Your task to perform on an android device: toggle priority inbox in the gmail app Image 0: 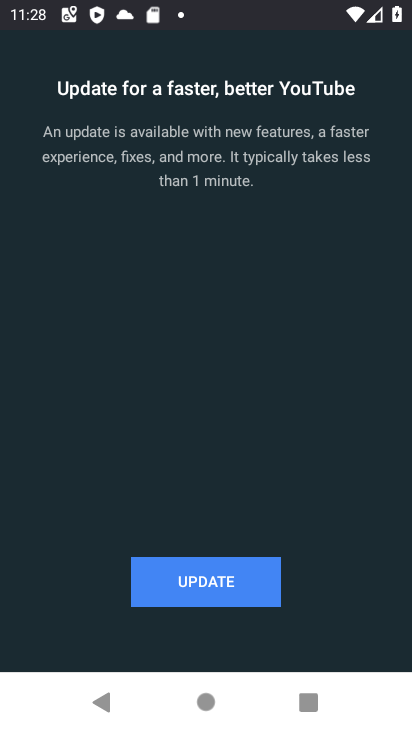
Step 0: press home button
Your task to perform on an android device: toggle priority inbox in the gmail app Image 1: 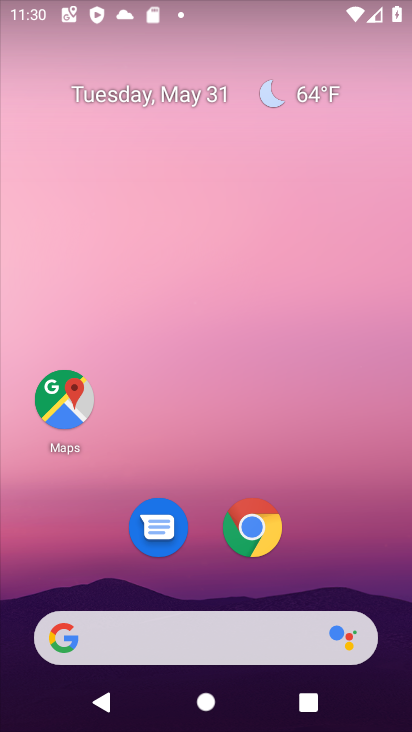
Step 1: drag from (281, 688) to (279, 17)
Your task to perform on an android device: toggle priority inbox in the gmail app Image 2: 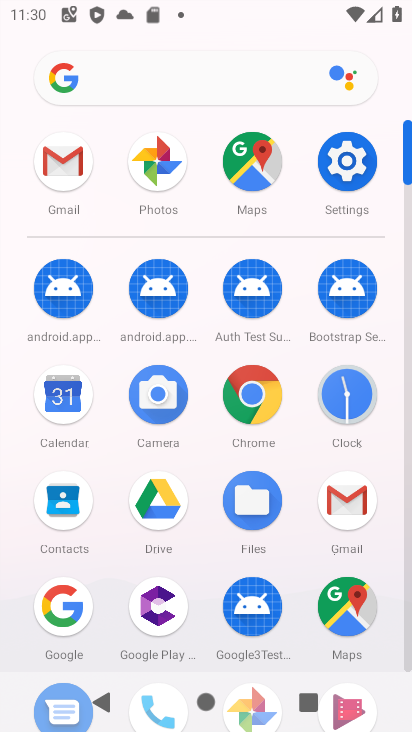
Step 2: click (345, 491)
Your task to perform on an android device: toggle priority inbox in the gmail app Image 3: 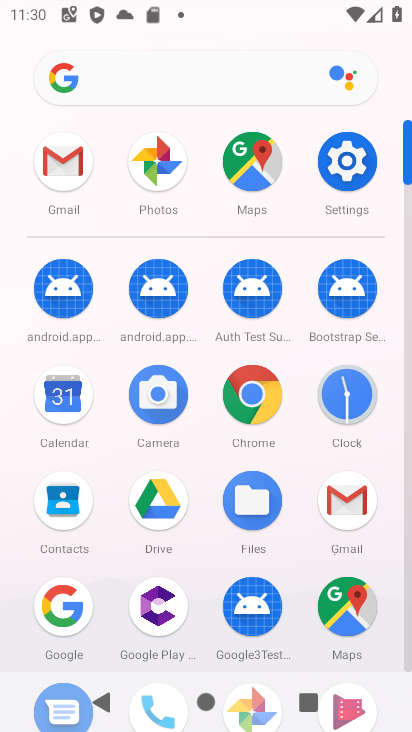
Step 3: click (345, 491)
Your task to perform on an android device: toggle priority inbox in the gmail app Image 4: 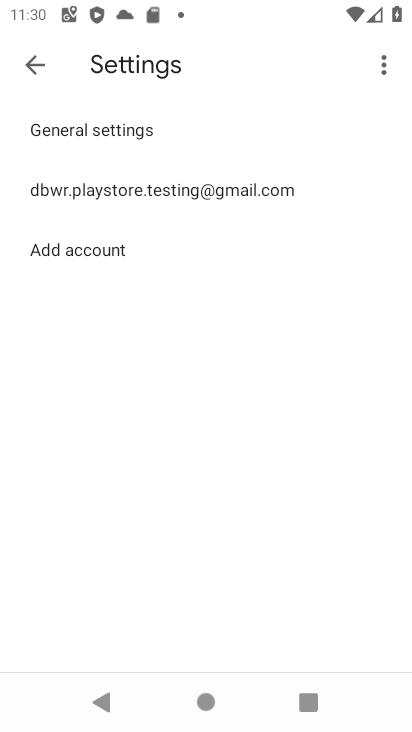
Step 4: click (126, 189)
Your task to perform on an android device: toggle priority inbox in the gmail app Image 5: 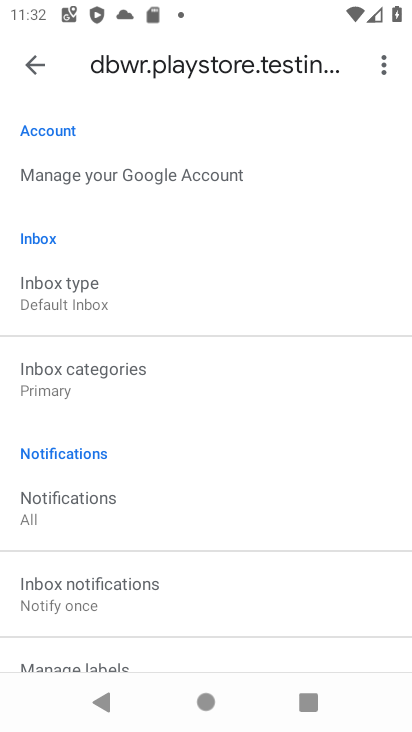
Step 5: click (149, 301)
Your task to perform on an android device: toggle priority inbox in the gmail app Image 6: 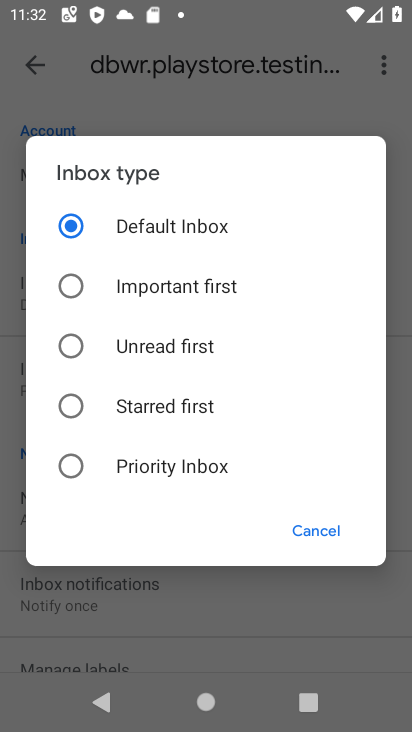
Step 6: click (175, 470)
Your task to perform on an android device: toggle priority inbox in the gmail app Image 7: 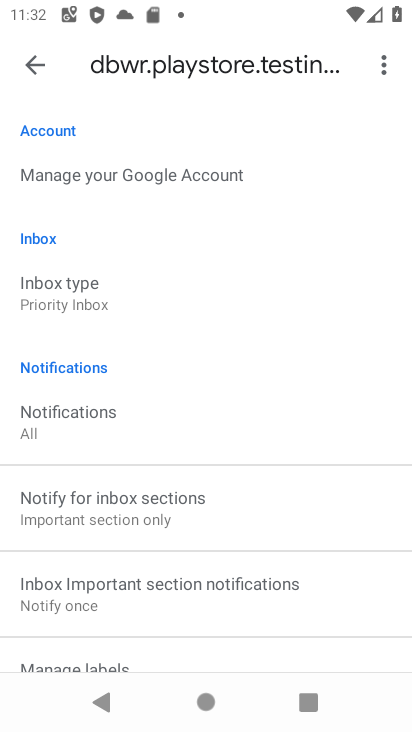
Step 7: task complete